Your task to perform on an android device: toggle show notifications on the lock screen Image 0: 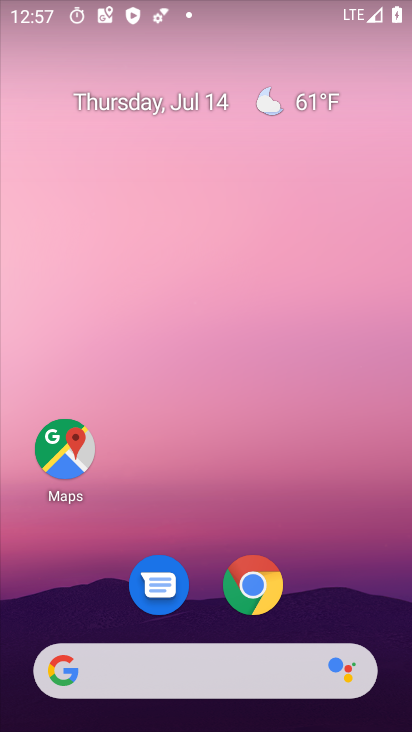
Step 0: drag from (340, 587) to (311, 69)
Your task to perform on an android device: toggle show notifications on the lock screen Image 1: 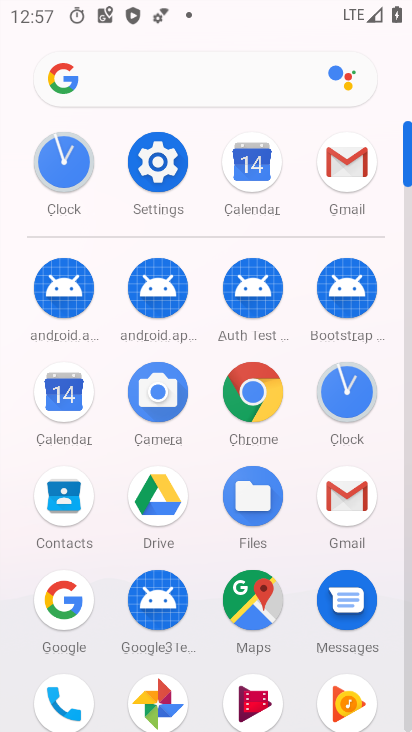
Step 1: click (171, 159)
Your task to perform on an android device: toggle show notifications on the lock screen Image 2: 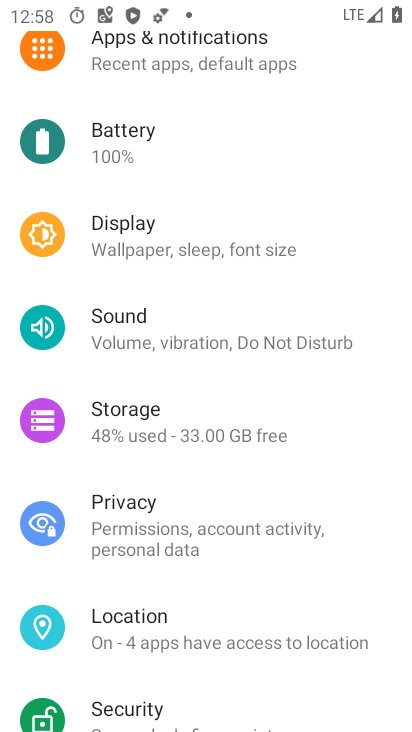
Step 2: drag from (246, 197) to (228, 648)
Your task to perform on an android device: toggle show notifications on the lock screen Image 3: 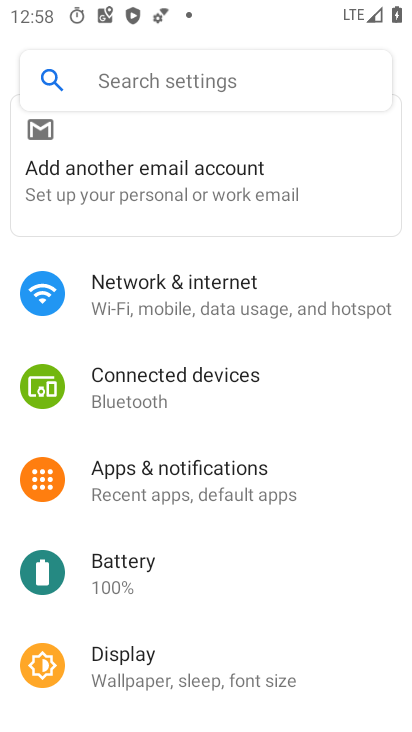
Step 3: click (230, 477)
Your task to perform on an android device: toggle show notifications on the lock screen Image 4: 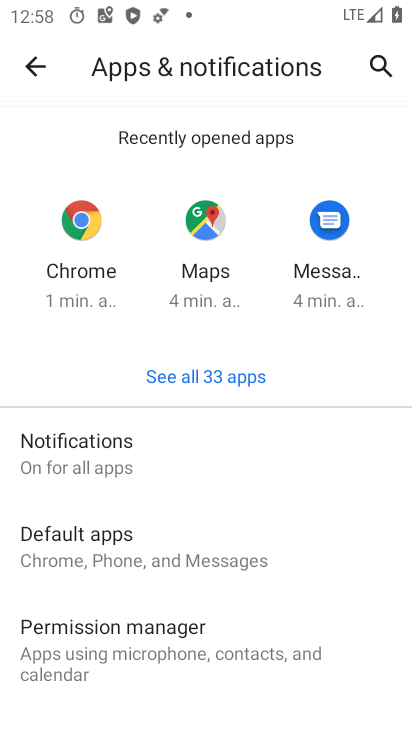
Step 4: click (97, 456)
Your task to perform on an android device: toggle show notifications on the lock screen Image 5: 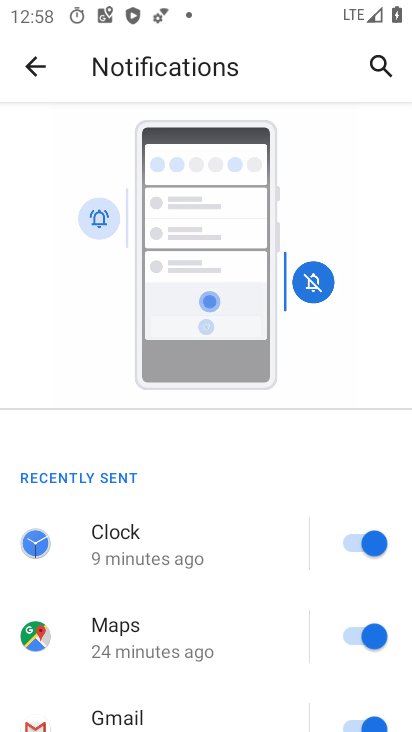
Step 5: drag from (215, 604) to (225, 48)
Your task to perform on an android device: toggle show notifications on the lock screen Image 6: 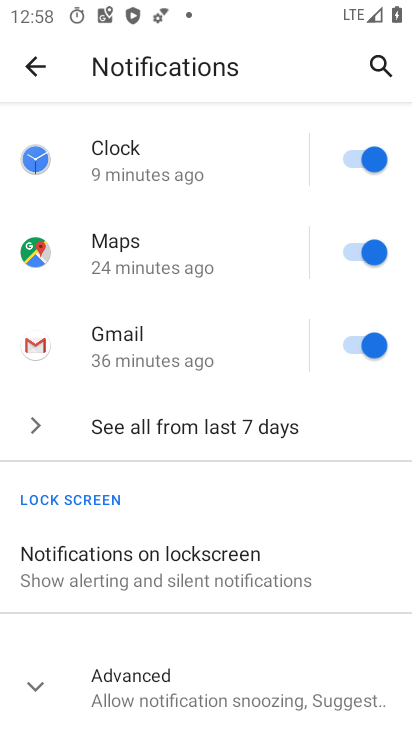
Step 6: click (139, 564)
Your task to perform on an android device: toggle show notifications on the lock screen Image 7: 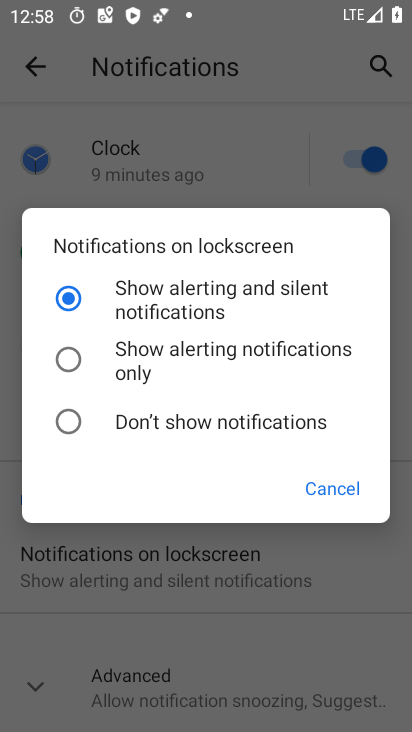
Step 7: click (75, 422)
Your task to perform on an android device: toggle show notifications on the lock screen Image 8: 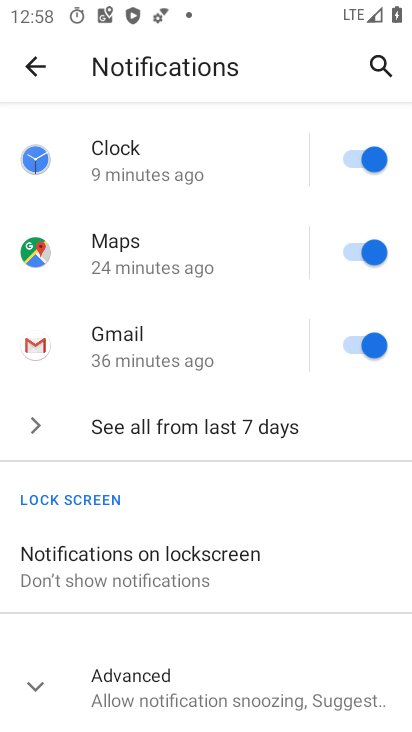
Step 8: task complete